Your task to perform on an android device: Open notification settings Image 0: 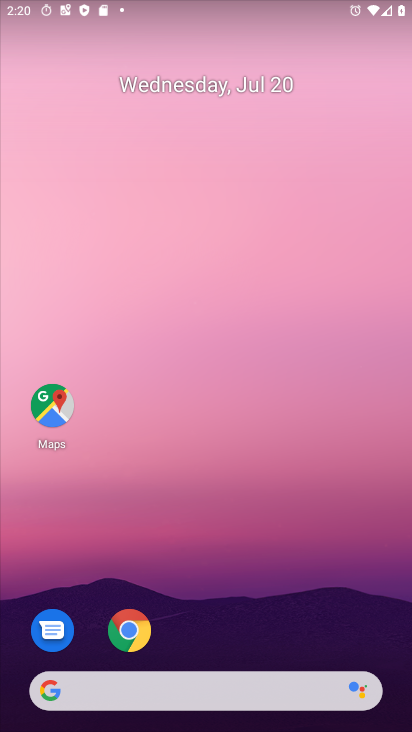
Step 0: drag from (181, 683) to (296, 41)
Your task to perform on an android device: Open notification settings Image 1: 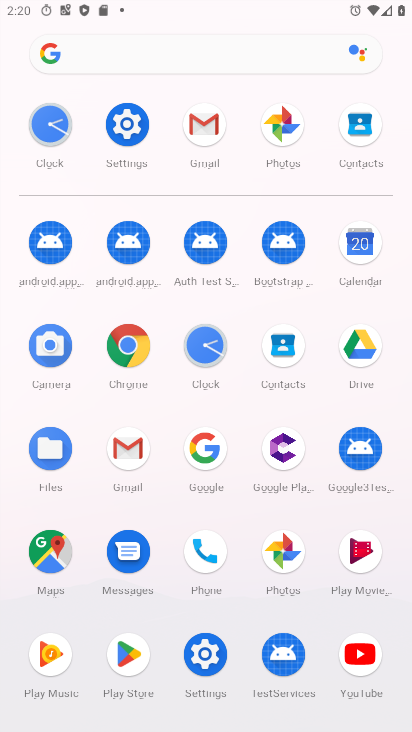
Step 1: click (130, 131)
Your task to perform on an android device: Open notification settings Image 2: 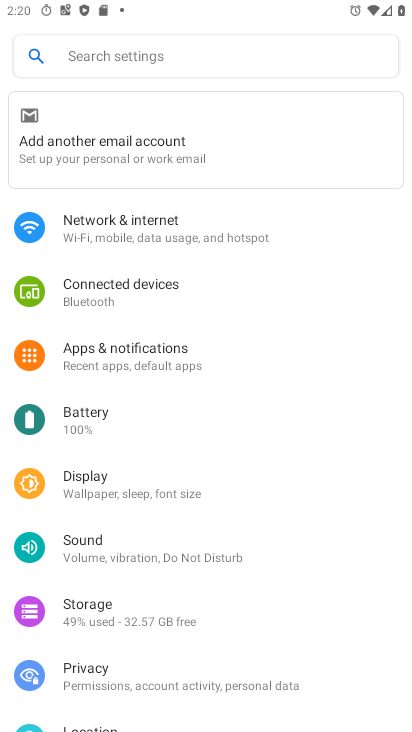
Step 2: click (159, 357)
Your task to perform on an android device: Open notification settings Image 3: 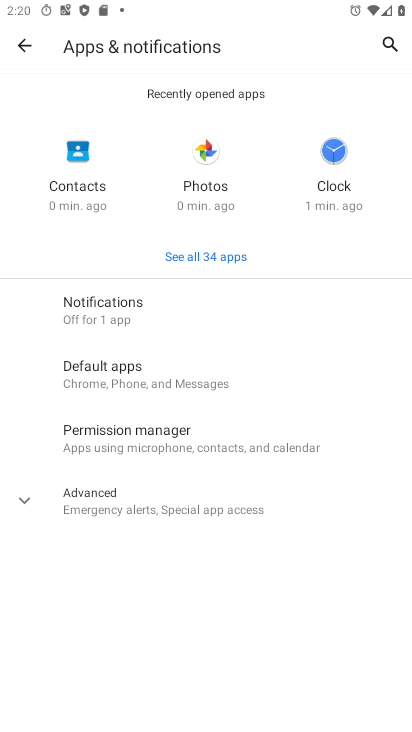
Step 3: click (107, 311)
Your task to perform on an android device: Open notification settings Image 4: 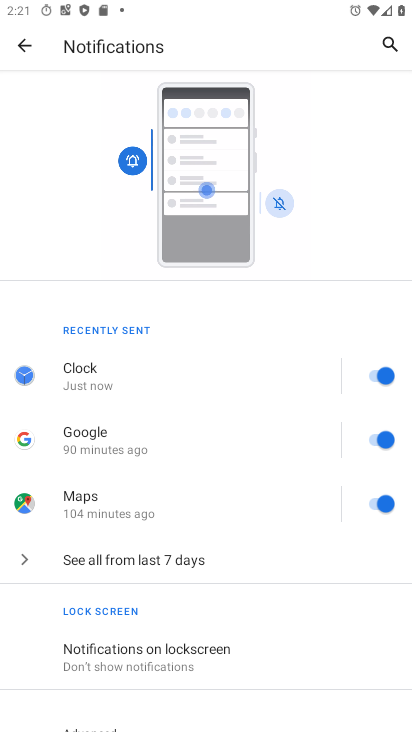
Step 4: task complete